Your task to perform on an android device: turn notification dots off Image 0: 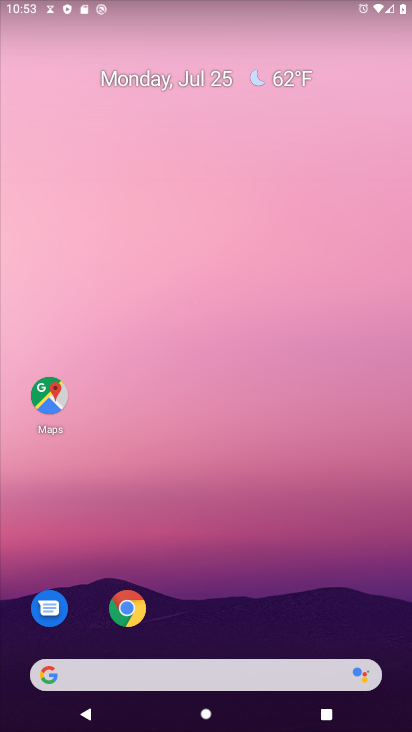
Step 0: drag from (211, 680) to (215, 117)
Your task to perform on an android device: turn notification dots off Image 1: 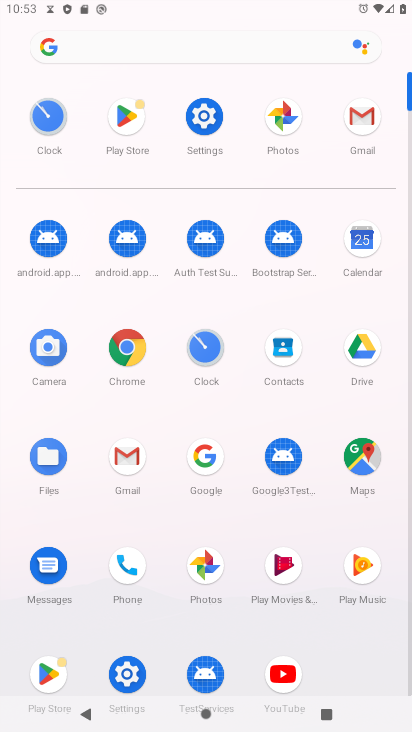
Step 1: click (203, 114)
Your task to perform on an android device: turn notification dots off Image 2: 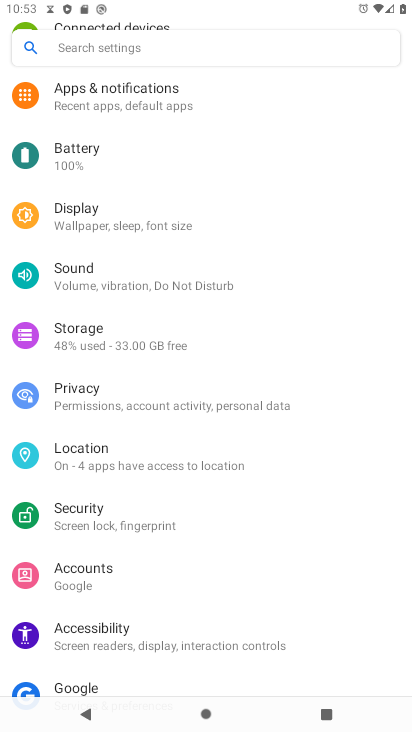
Step 2: drag from (114, 433) to (165, 359)
Your task to perform on an android device: turn notification dots off Image 3: 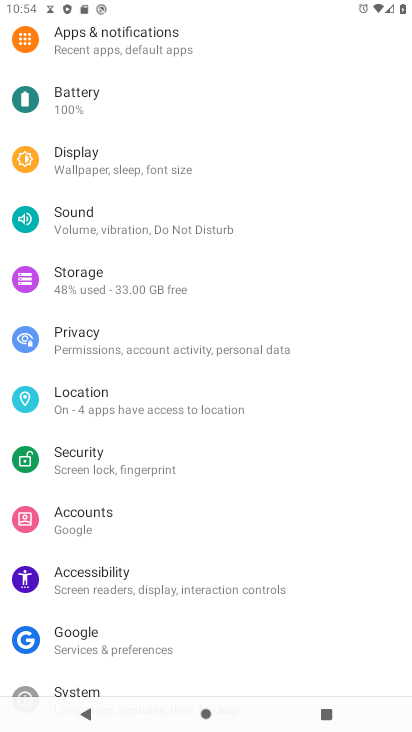
Step 3: drag from (166, 480) to (222, 383)
Your task to perform on an android device: turn notification dots off Image 4: 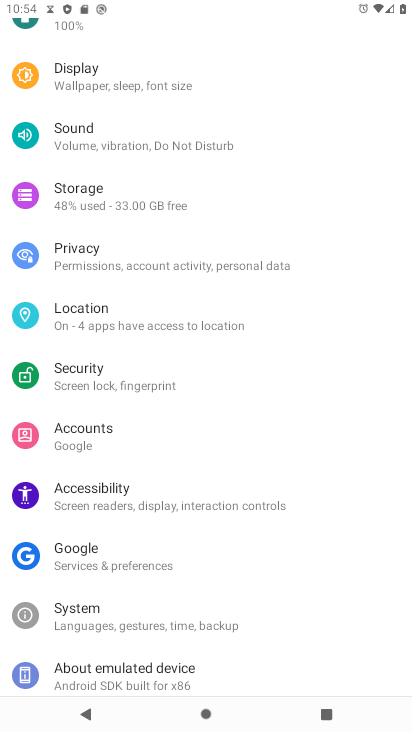
Step 4: drag from (186, 232) to (206, 430)
Your task to perform on an android device: turn notification dots off Image 5: 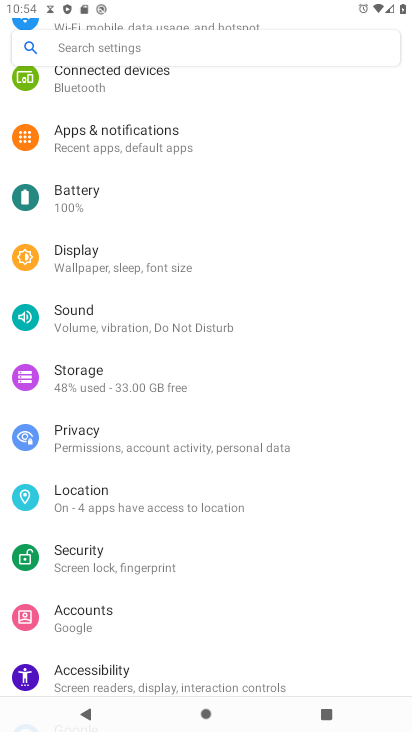
Step 5: click (142, 150)
Your task to perform on an android device: turn notification dots off Image 6: 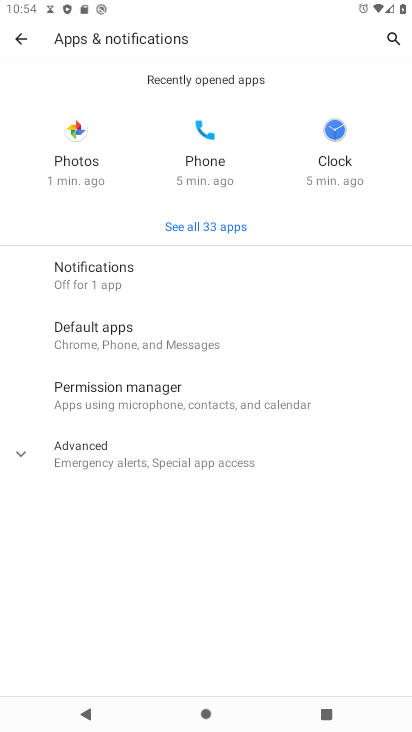
Step 6: click (104, 278)
Your task to perform on an android device: turn notification dots off Image 7: 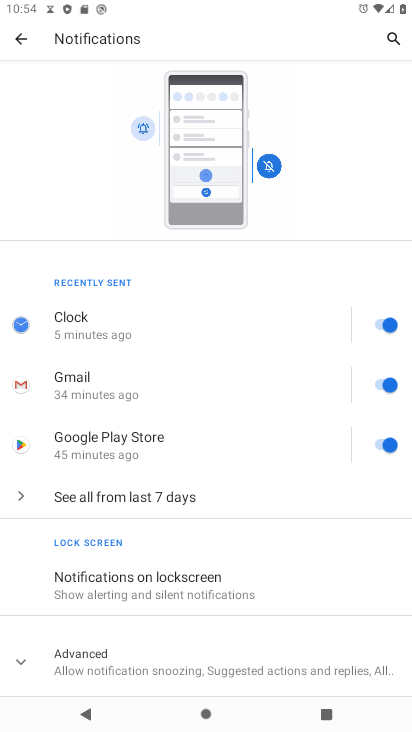
Step 7: drag from (169, 615) to (200, 518)
Your task to perform on an android device: turn notification dots off Image 8: 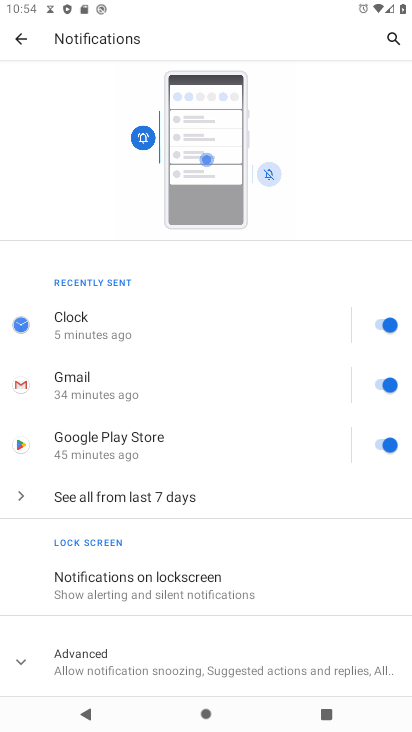
Step 8: click (198, 662)
Your task to perform on an android device: turn notification dots off Image 9: 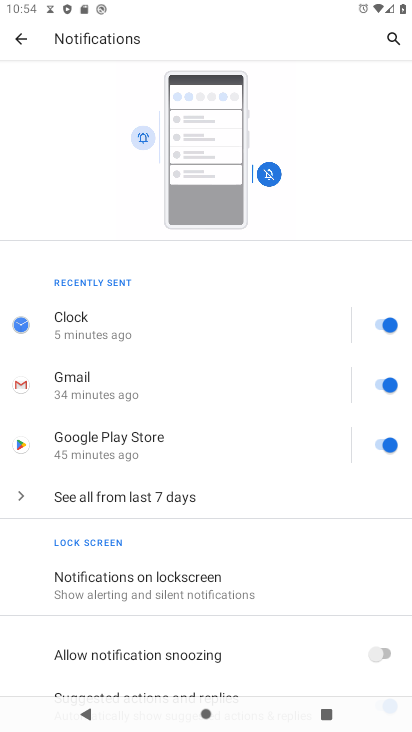
Step 9: drag from (180, 634) to (223, 466)
Your task to perform on an android device: turn notification dots off Image 10: 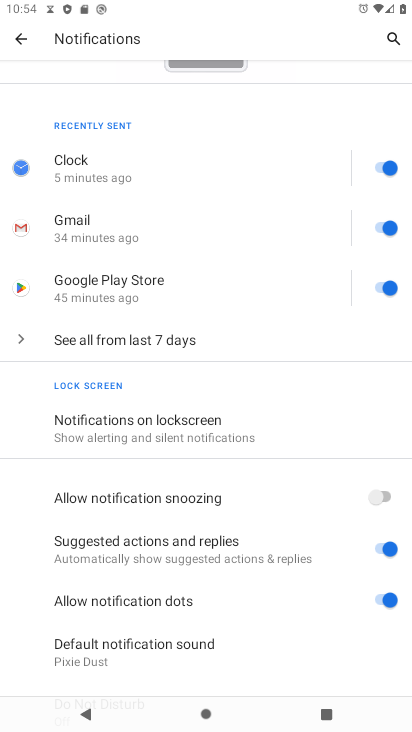
Step 10: click (377, 600)
Your task to perform on an android device: turn notification dots off Image 11: 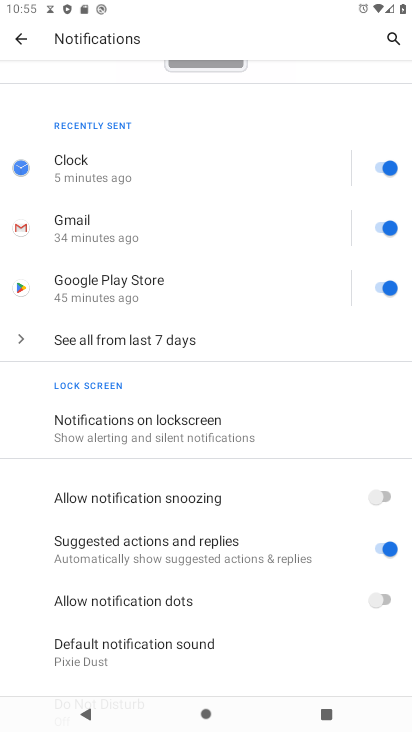
Step 11: task complete